Your task to perform on an android device: Open Youtube and go to the subscriptions tab Image 0: 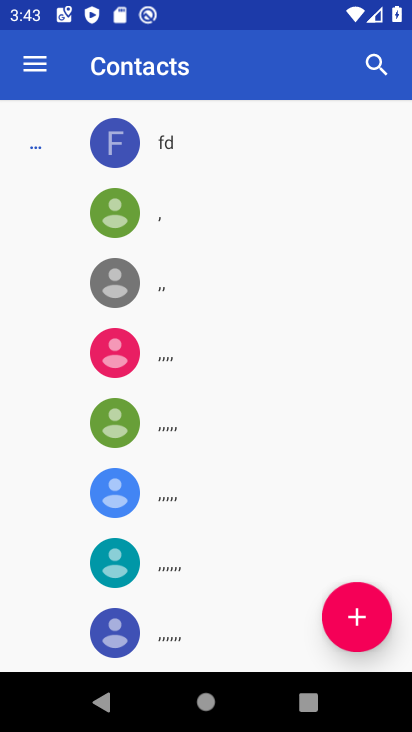
Step 0: press home button
Your task to perform on an android device: Open Youtube and go to the subscriptions tab Image 1: 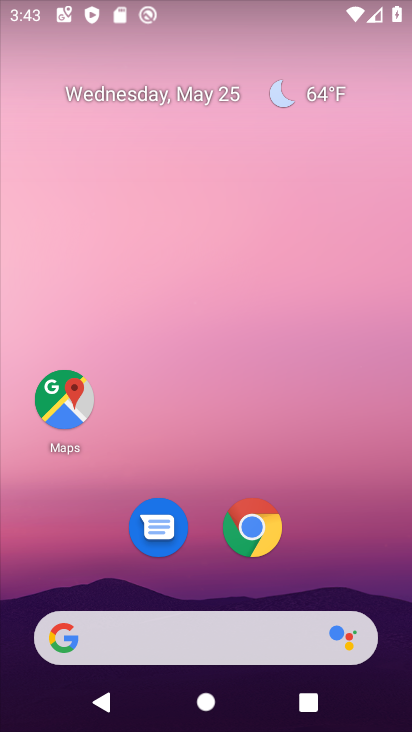
Step 1: drag from (202, 596) to (196, 30)
Your task to perform on an android device: Open Youtube and go to the subscriptions tab Image 2: 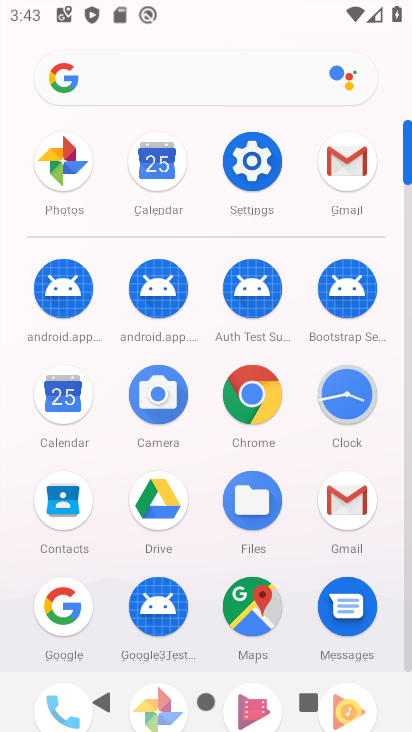
Step 2: drag from (152, 551) to (207, 34)
Your task to perform on an android device: Open Youtube and go to the subscriptions tab Image 3: 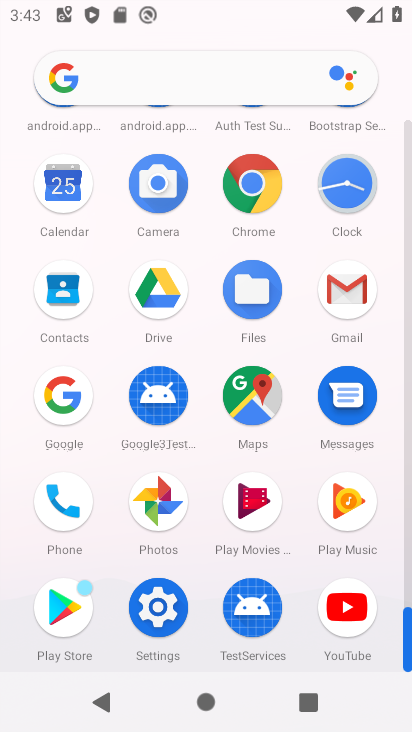
Step 3: click (352, 617)
Your task to perform on an android device: Open Youtube and go to the subscriptions tab Image 4: 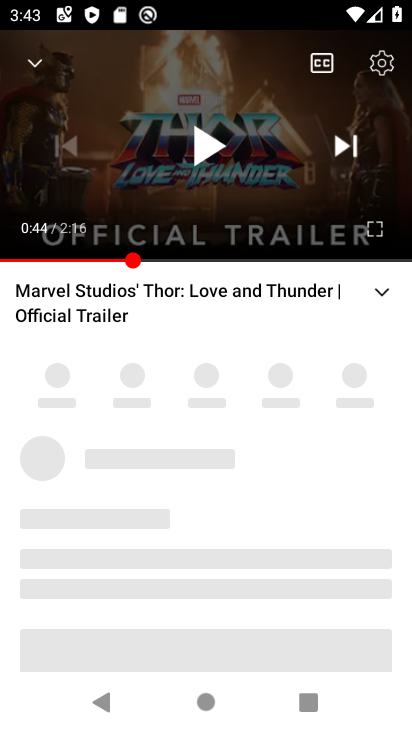
Step 4: click (30, 60)
Your task to perform on an android device: Open Youtube and go to the subscriptions tab Image 5: 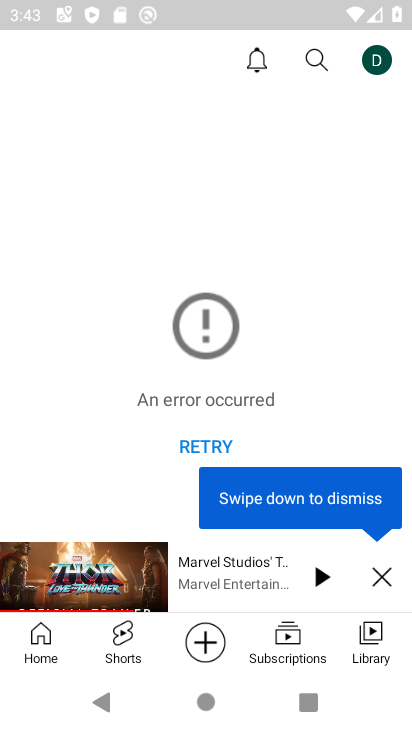
Step 5: click (274, 631)
Your task to perform on an android device: Open Youtube and go to the subscriptions tab Image 6: 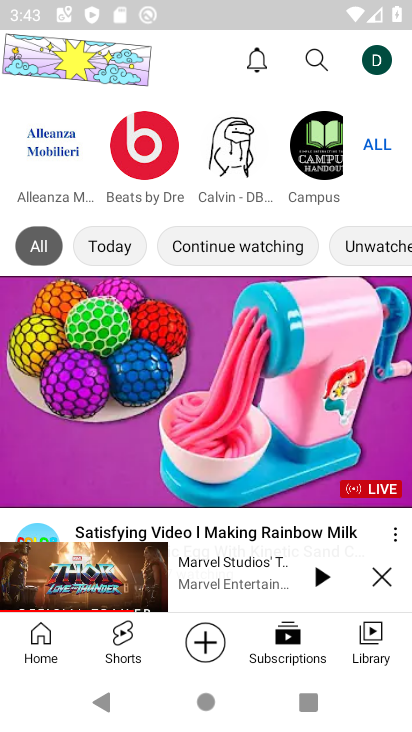
Step 6: task complete